Your task to perform on an android device: Open calendar and show me the third week of next month Image 0: 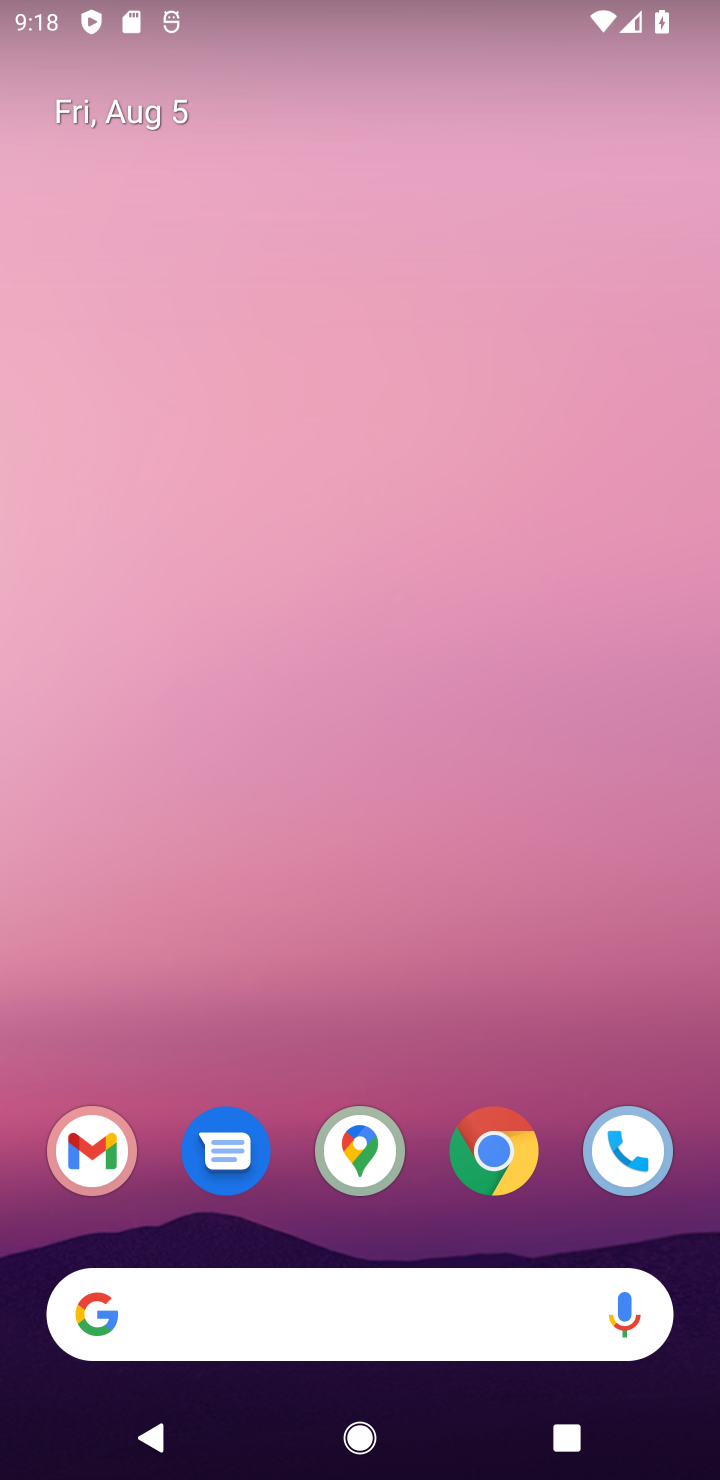
Step 0: drag from (330, 894) to (351, 25)
Your task to perform on an android device: Open calendar and show me the third week of next month Image 1: 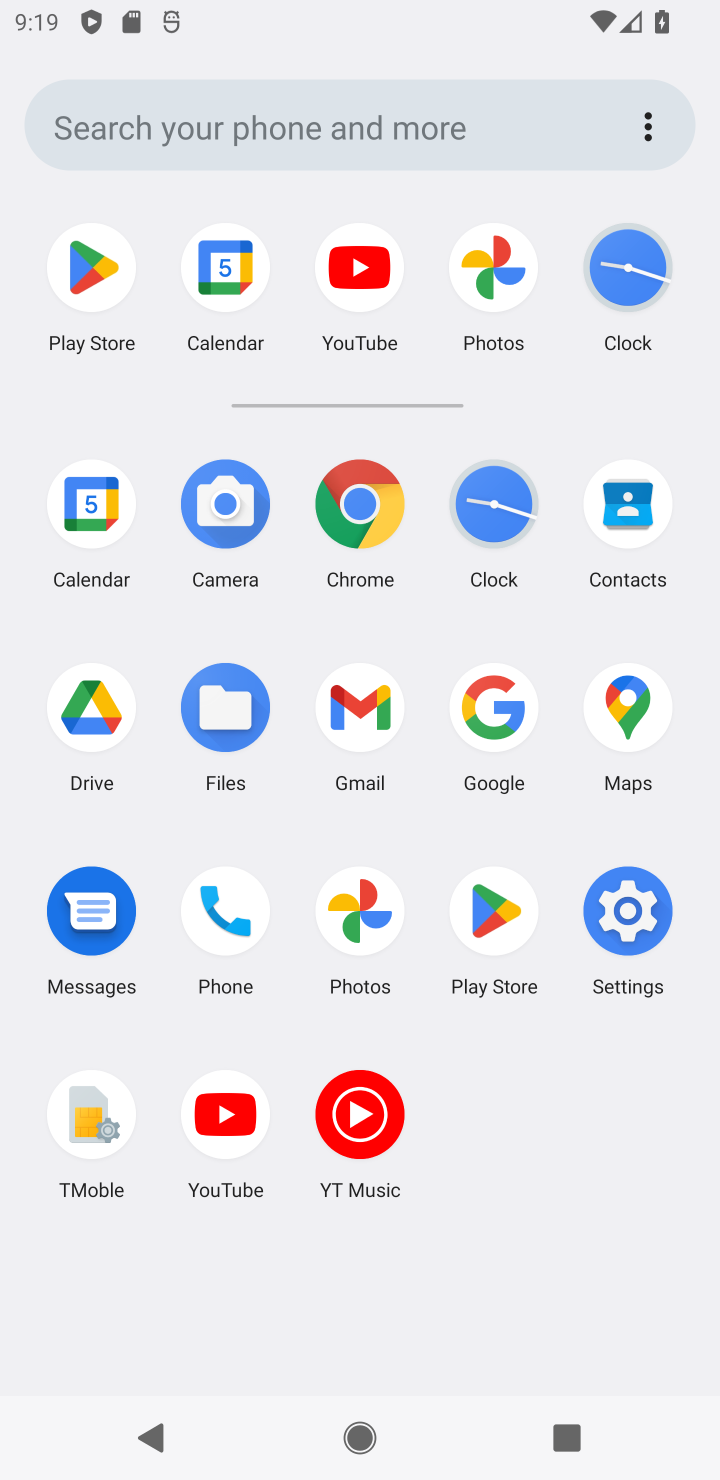
Step 1: click (84, 538)
Your task to perform on an android device: Open calendar and show me the third week of next month Image 2: 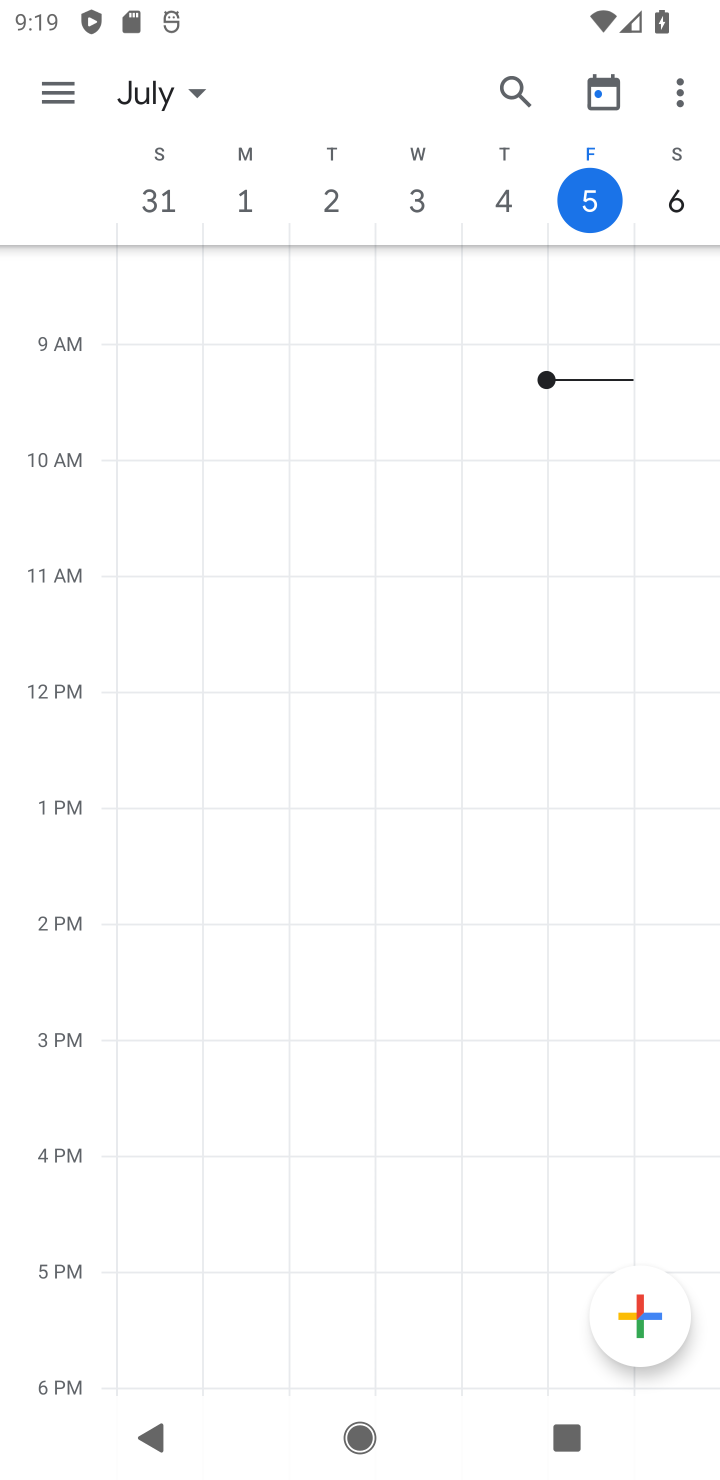
Step 2: click (133, 79)
Your task to perform on an android device: Open calendar and show me the third week of next month Image 3: 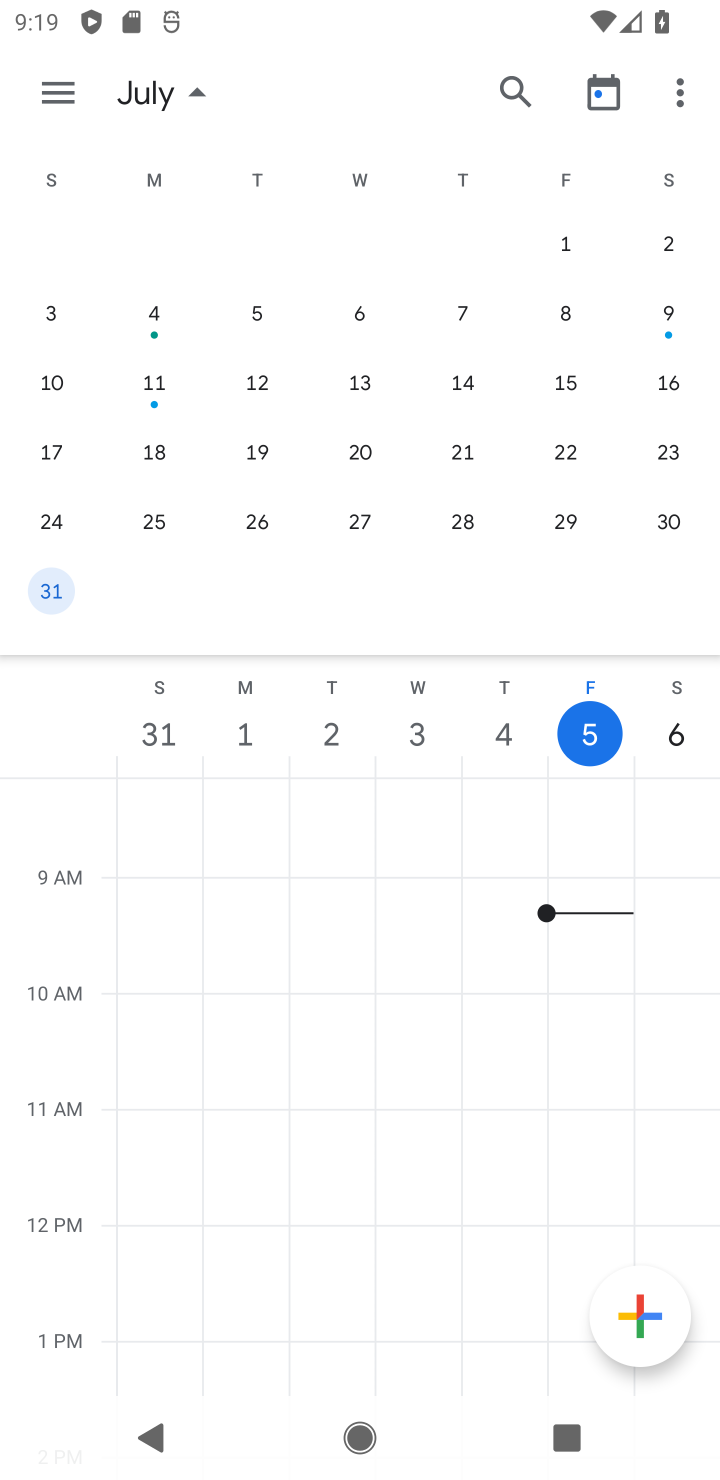
Step 3: drag from (414, 357) to (2, 378)
Your task to perform on an android device: Open calendar and show me the third week of next month Image 4: 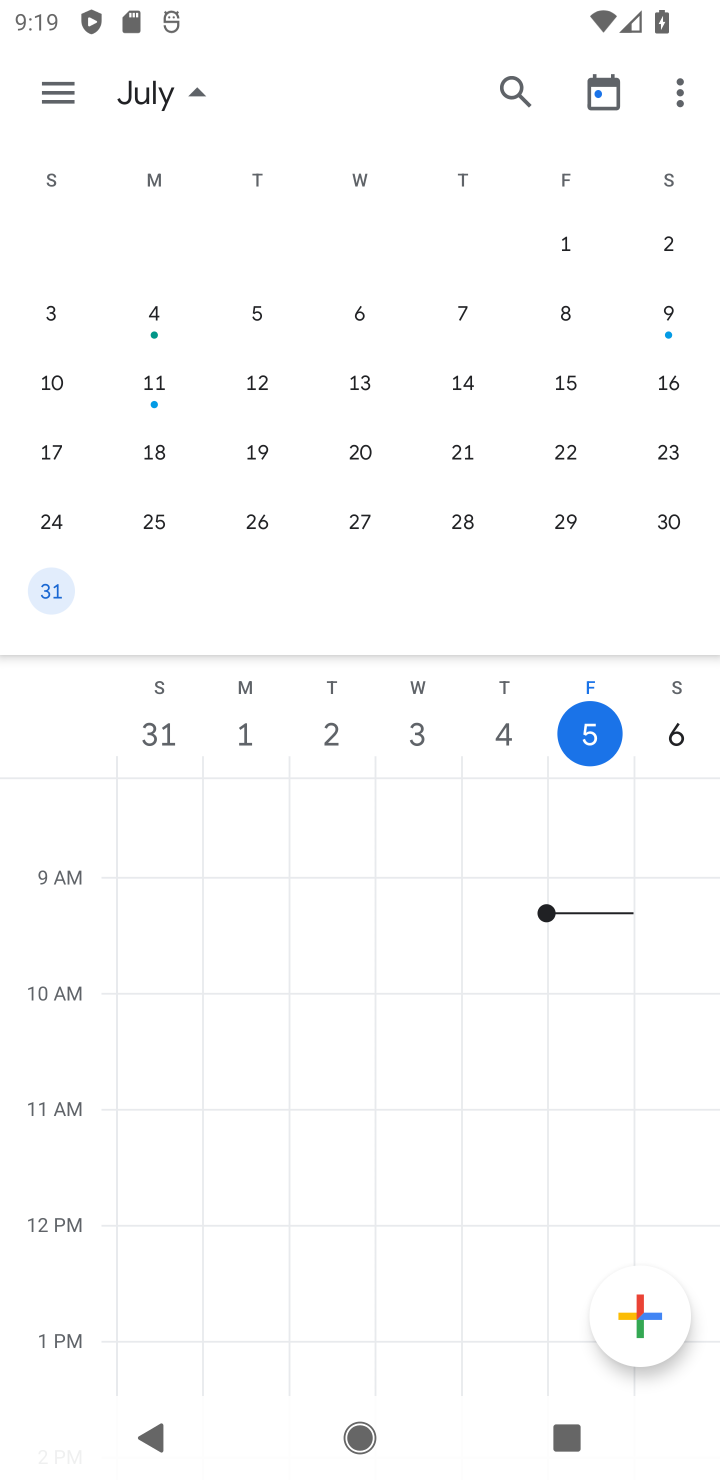
Step 4: drag from (626, 438) to (43, 416)
Your task to perform on an android device: Open calendar and show me the third week of next month Image 5: 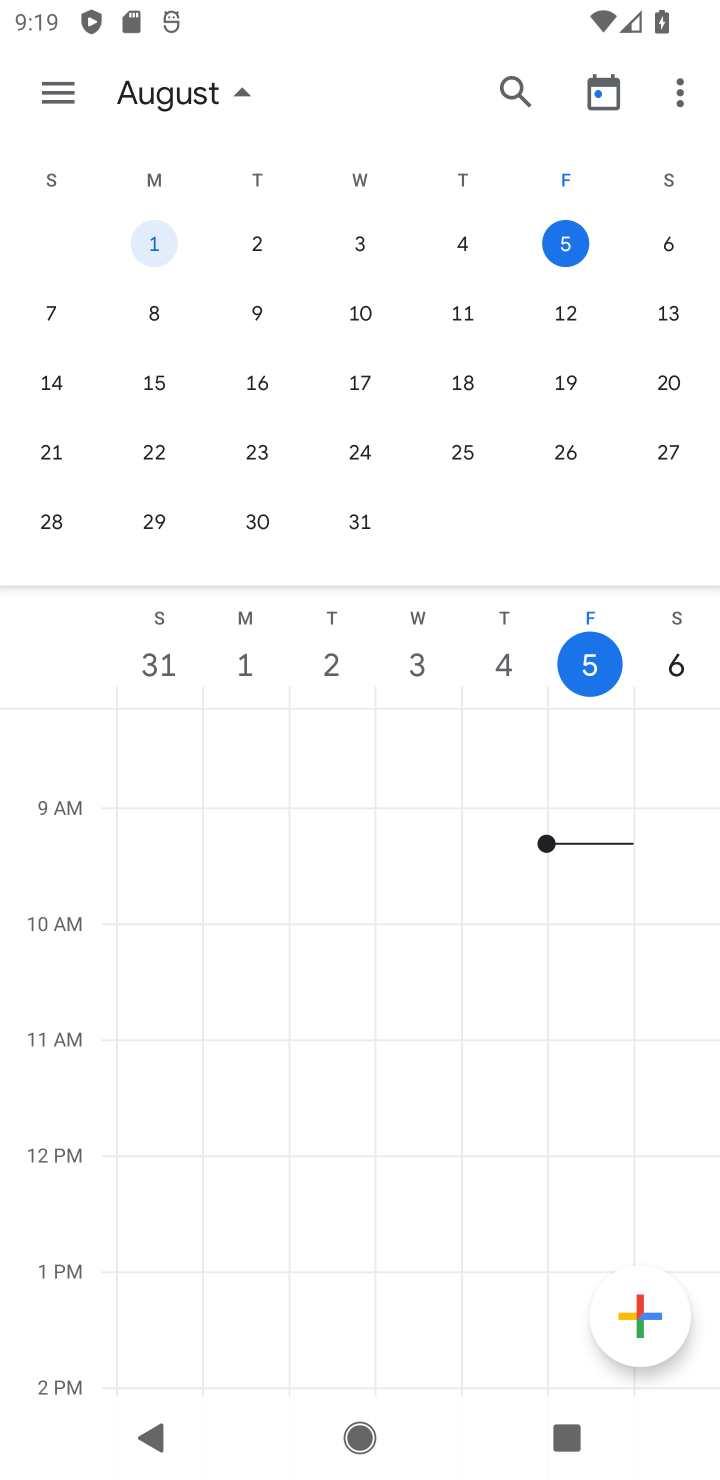
Step 5: drag from (469, 421) to (19, 425)
Your task to perform on an android device: Open calendar and show me the third week of next month Image 6: 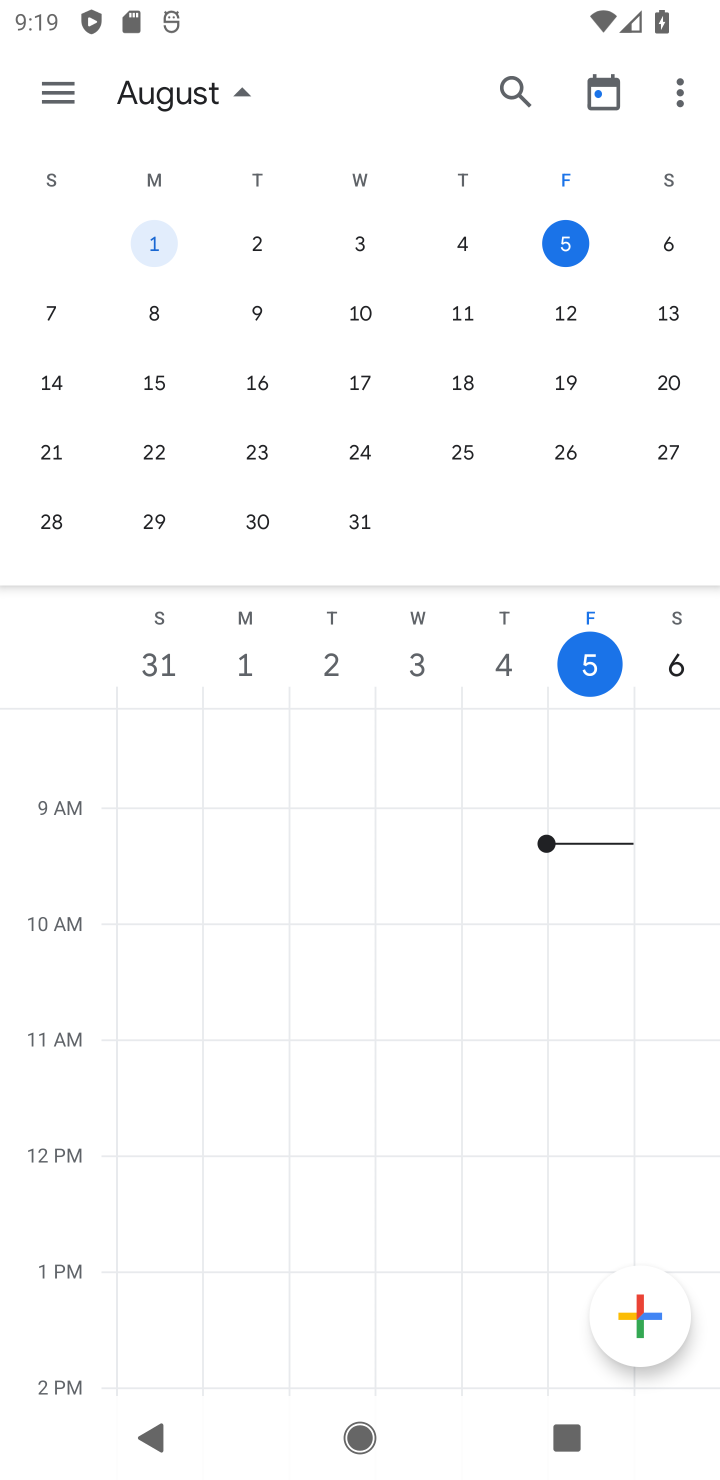
Step 6: drag from (600, 367) to (41, 367)
Your task to perform on an android device: Open calendar and show me the third week of next month Image 7: 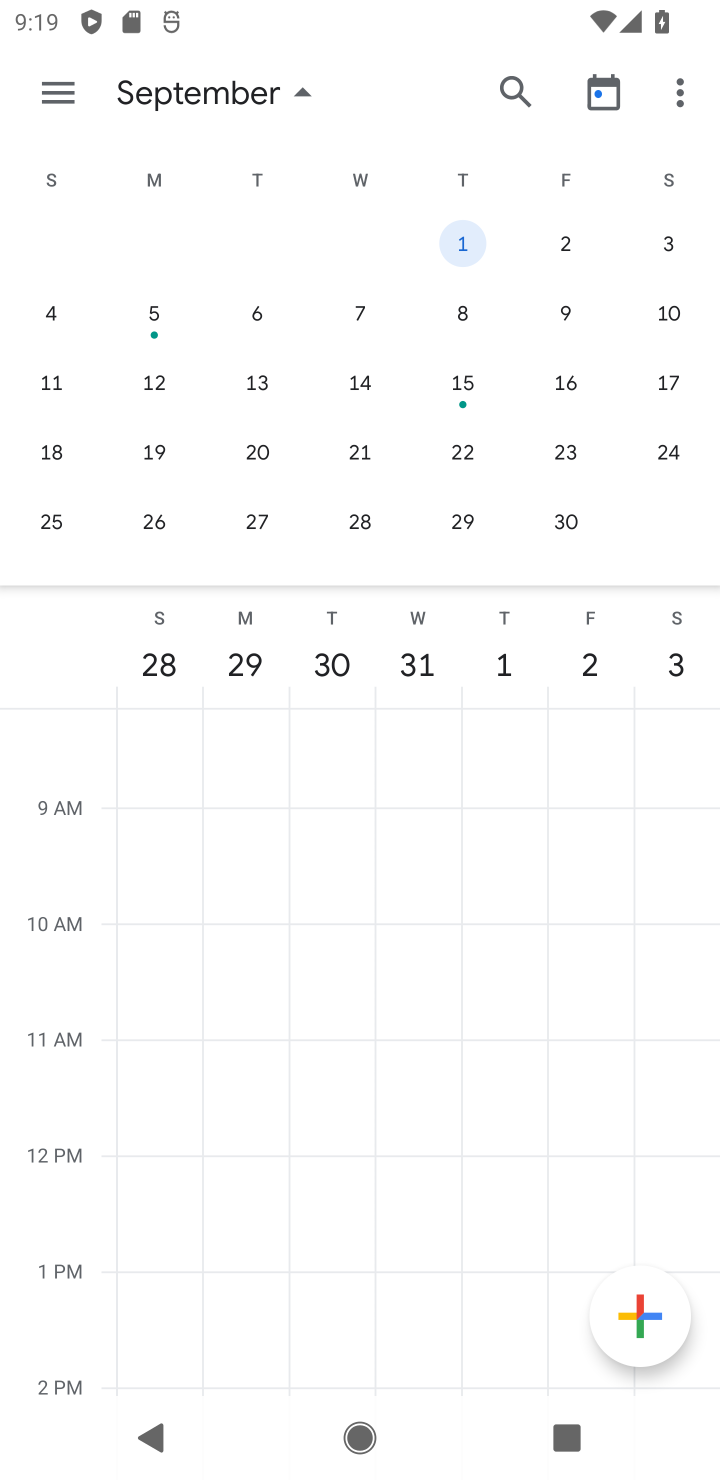
Step 7: click (57, 384)
Your task to perform on an android device: Open calendar and show me the third week of next month Image 8: 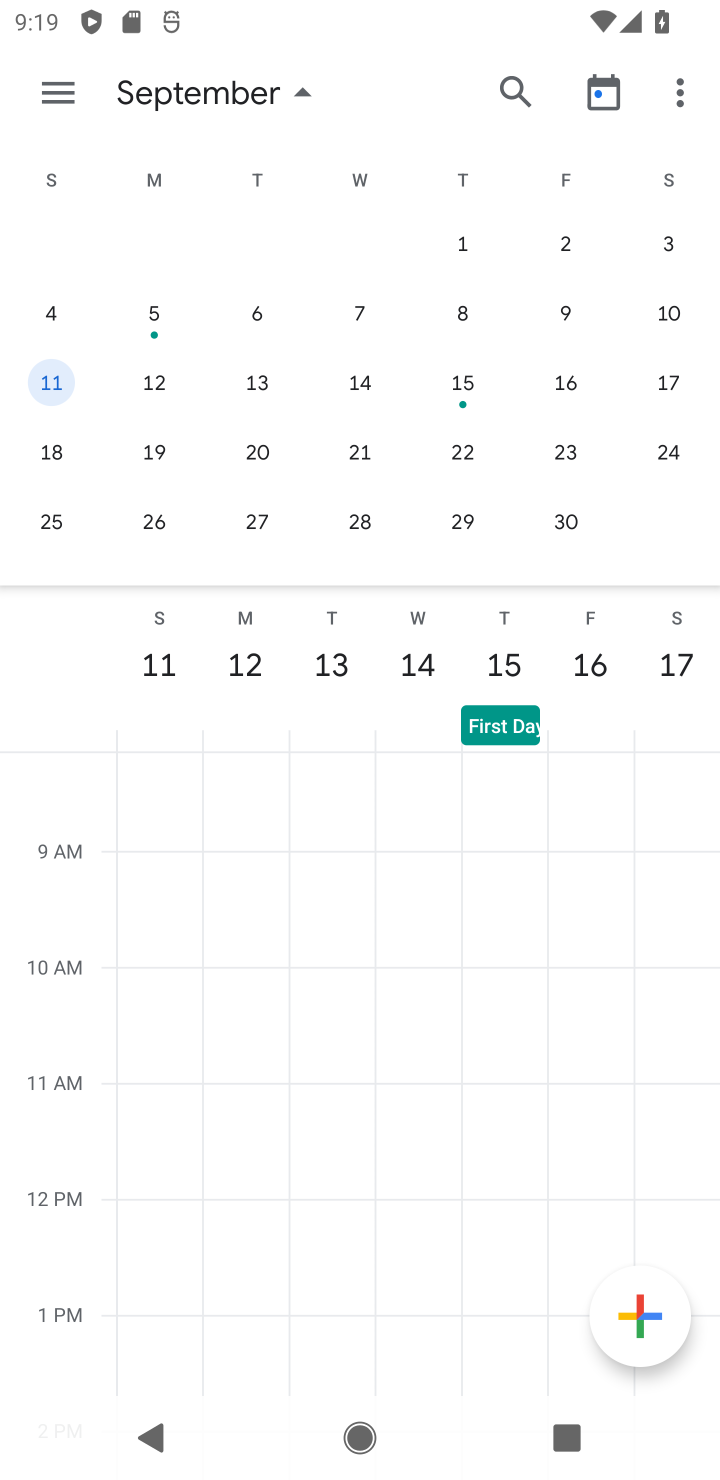
Step 8: task complete